Your task to perform on an android device: toggle wifi Image 0: 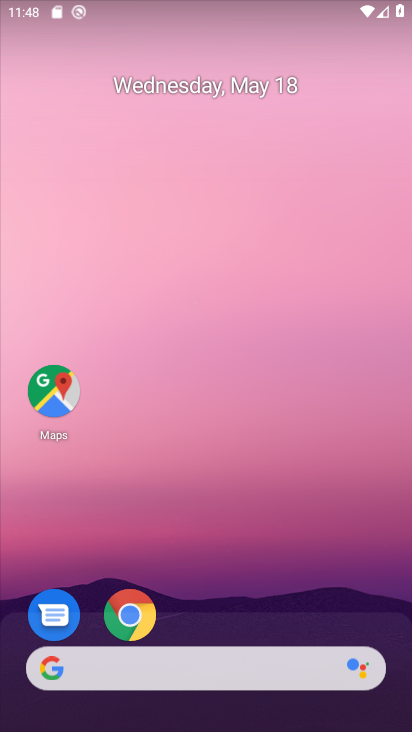
Step 0: drag from (241, 567) to (240, 22)
Your task to perform on an android device: toggle wifi Image 1: 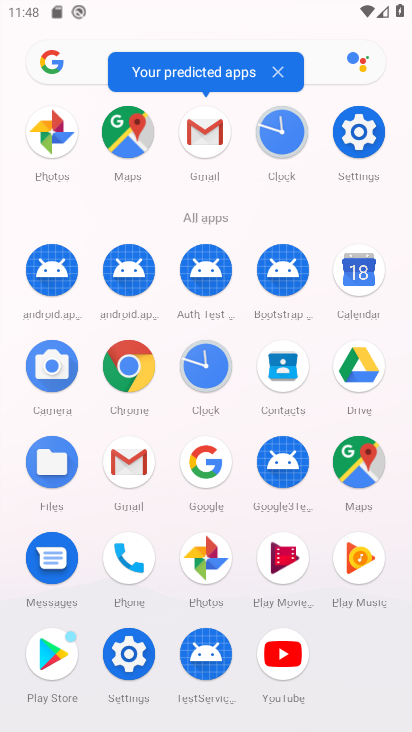
Step 1: drag from (3, 563) to (3, 270)
Your task to perform on an android device: toggle wifi Image 2: 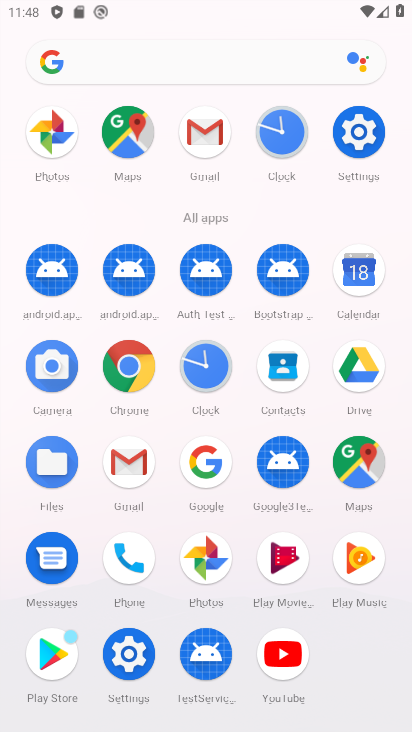
Step 2: click (126, 650)
Your task to perform on an android device: toggle wifi Image 3: 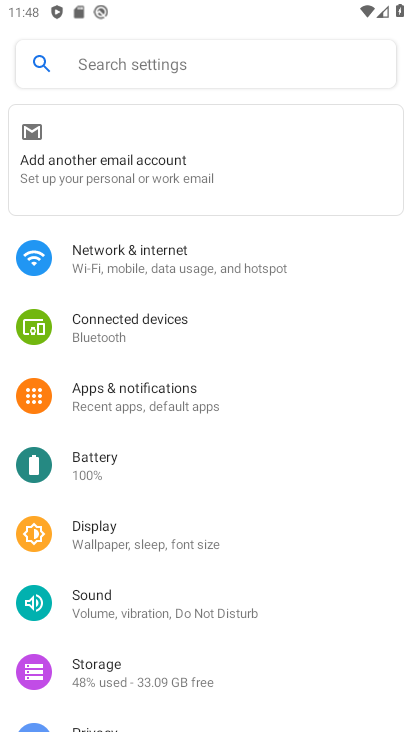
Step 3: click (131, 267)
Your task to perform on an android device: toggle wifi Image 4: 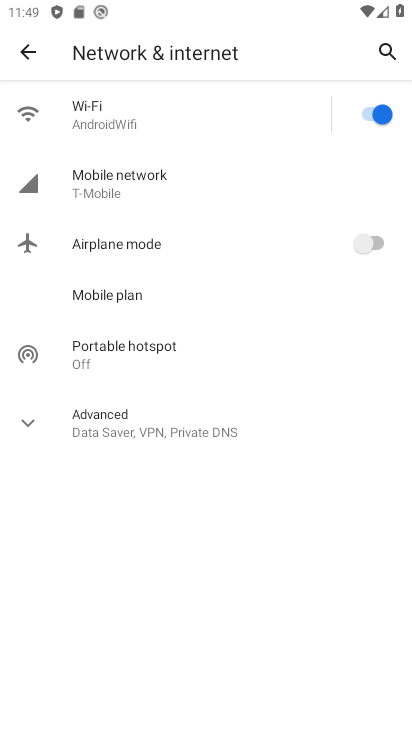
Step 4: click (361, 114)
Your task to perform on an android device: toggle wifi Image 5: 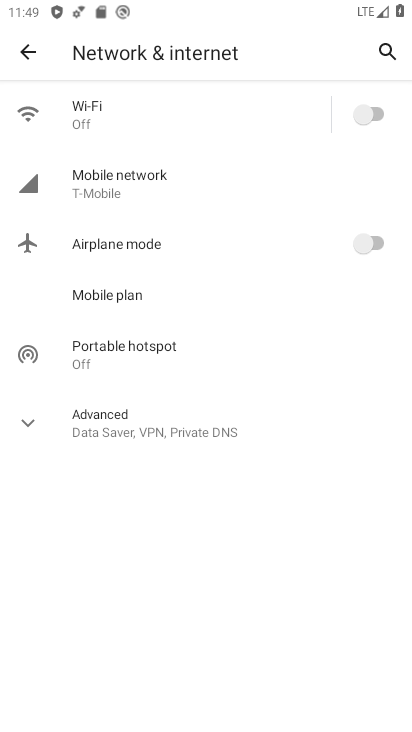
Step 5: task complete